Your task to perform on an android device: open app "Grab" Image 0: 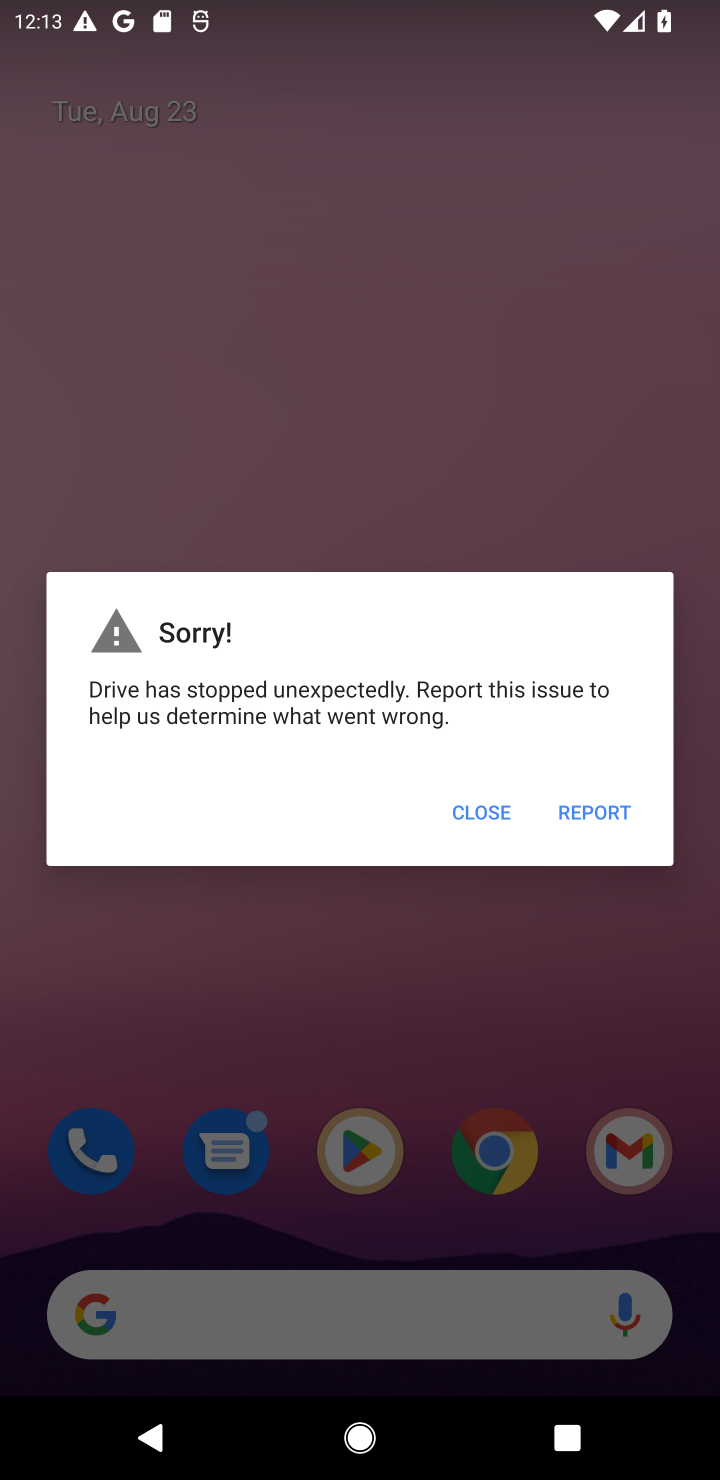
Step 0: click (484, 796)
Your task to perform on an android device: open app "Grab" Image 1: 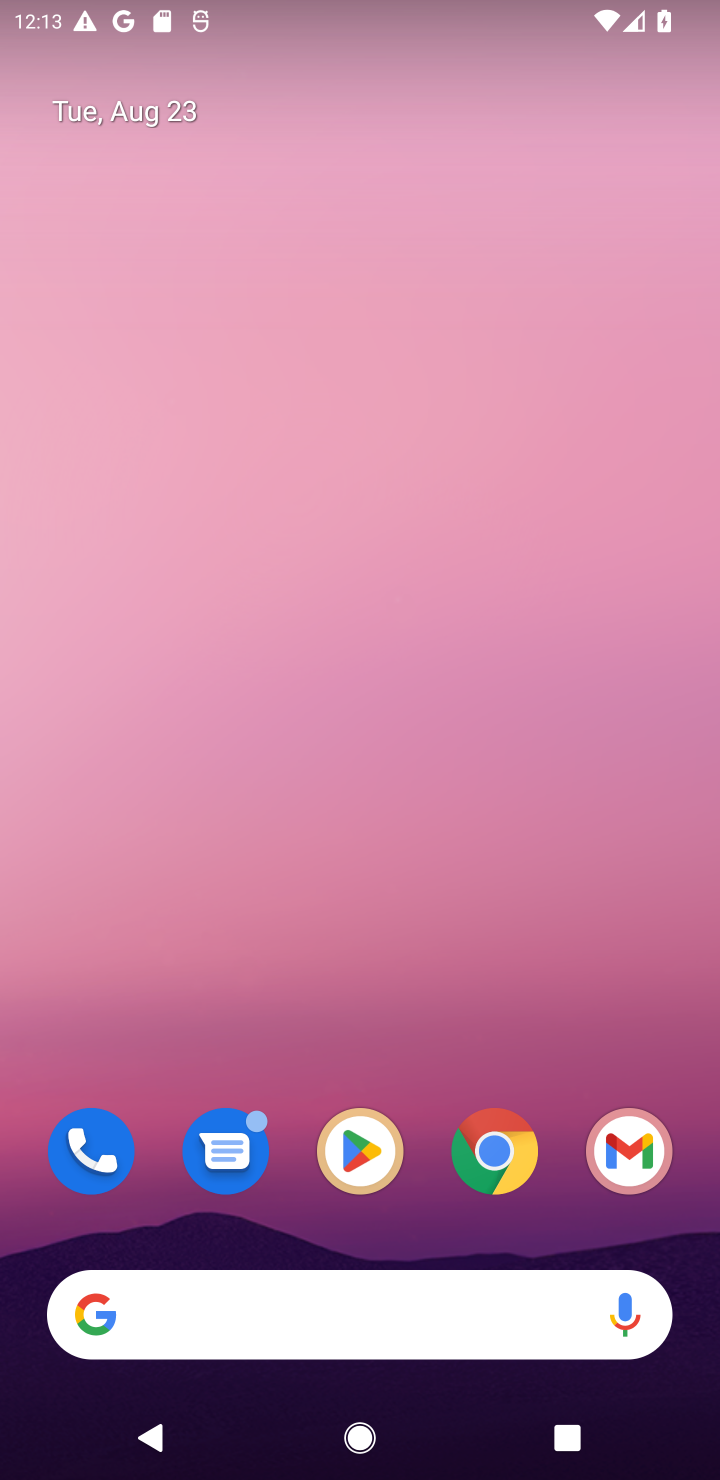
Step 1: click (356, 1124)
Your task to perform on an android device: open app "Grab" Image 2: 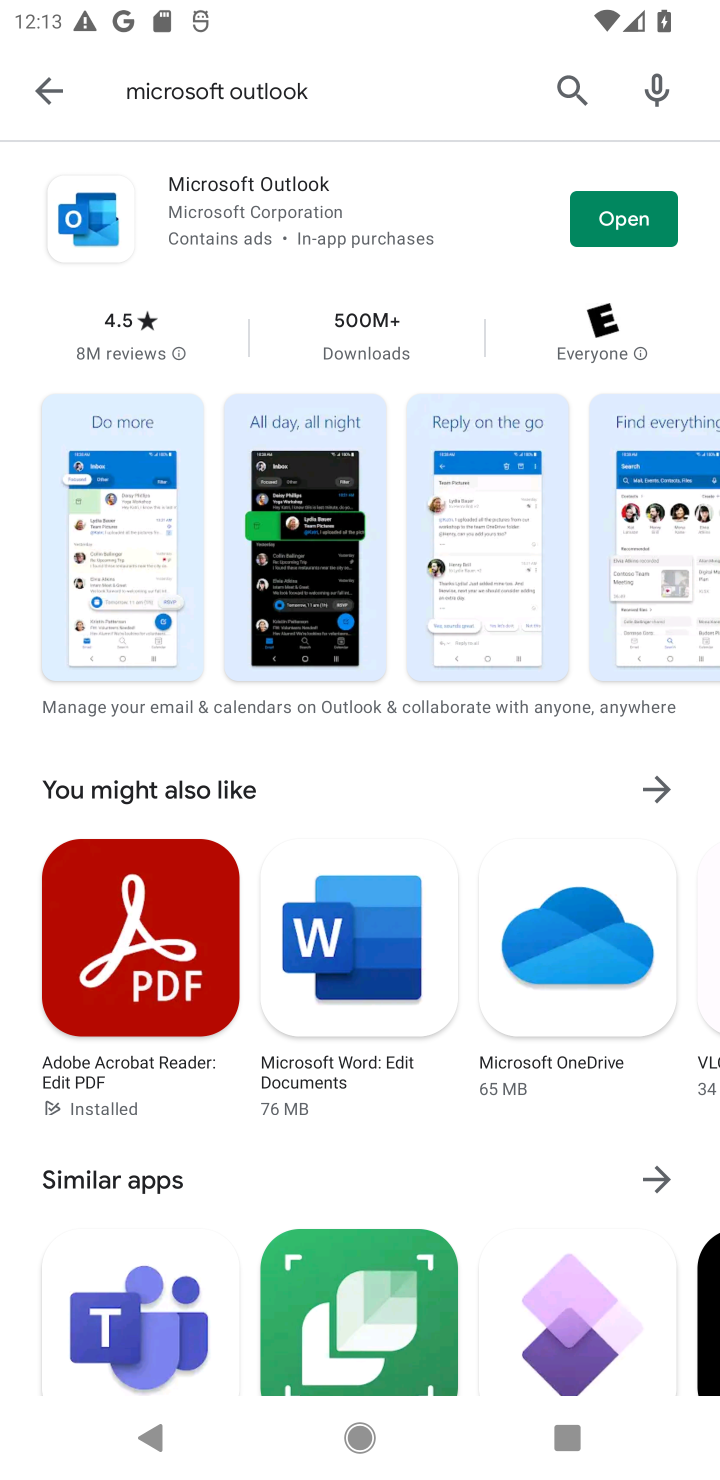
Step 2: click (560, 76)
Your task to perform on an android device: open app "Grab" Image 3: 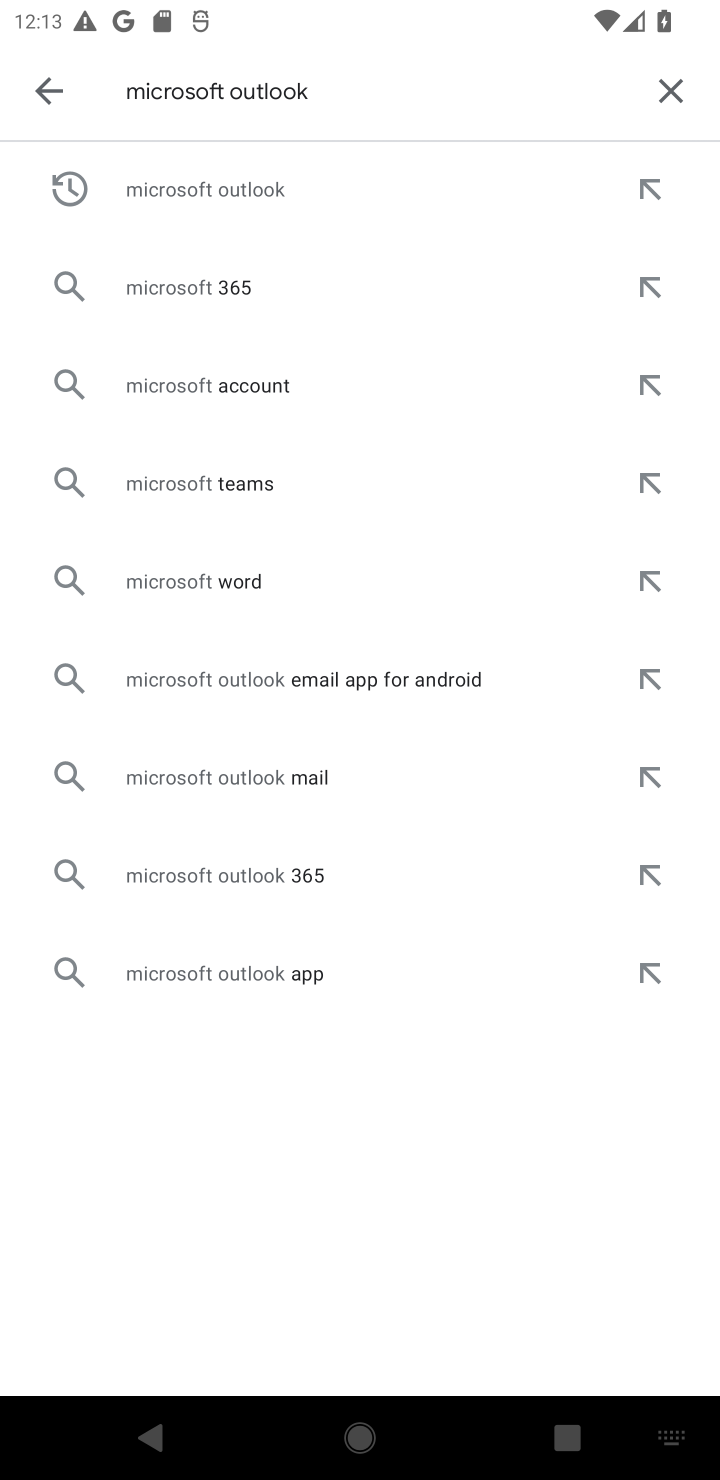
Step 3: click (683, 84)
Your task to perform on an android device: open app "Grab" Image 4: 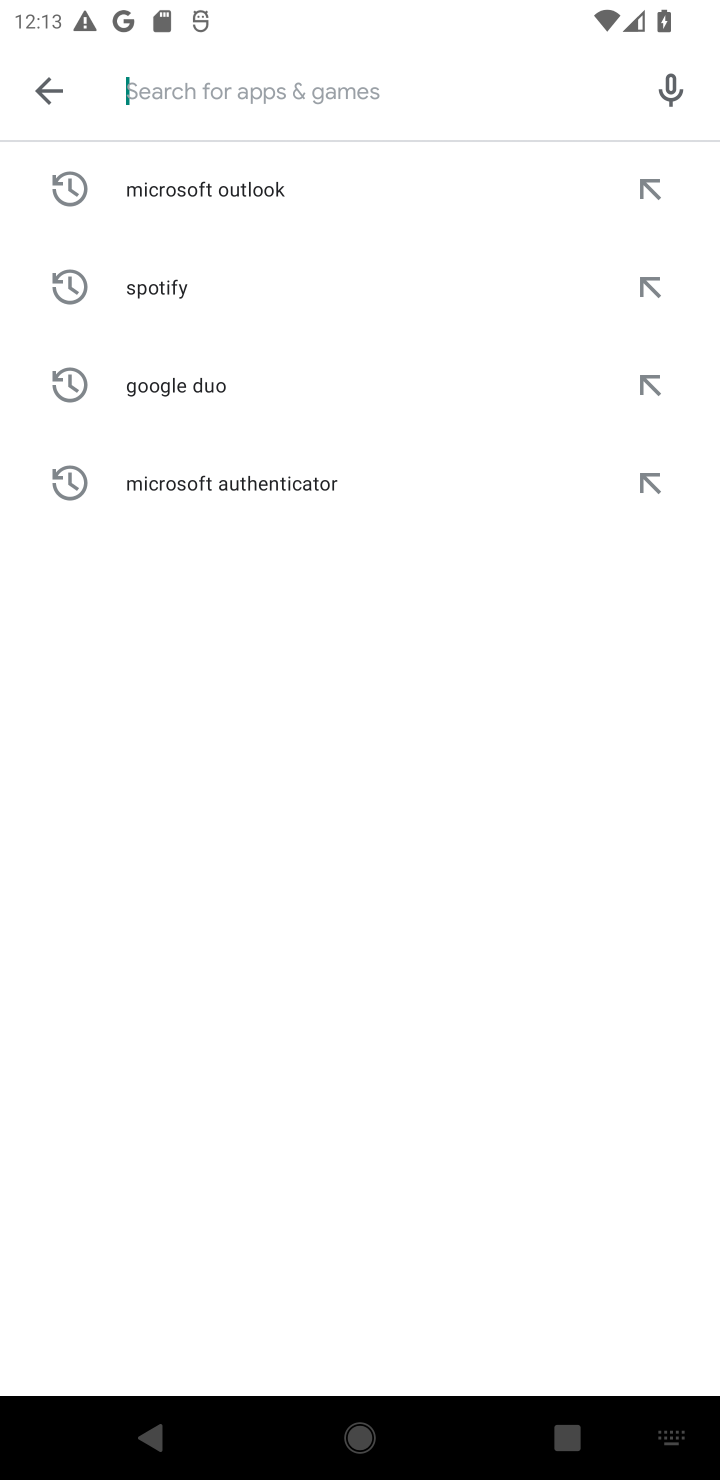
Step 4: type "Grab"
Your task to perform on an android device: open app "Grab" Image 5: 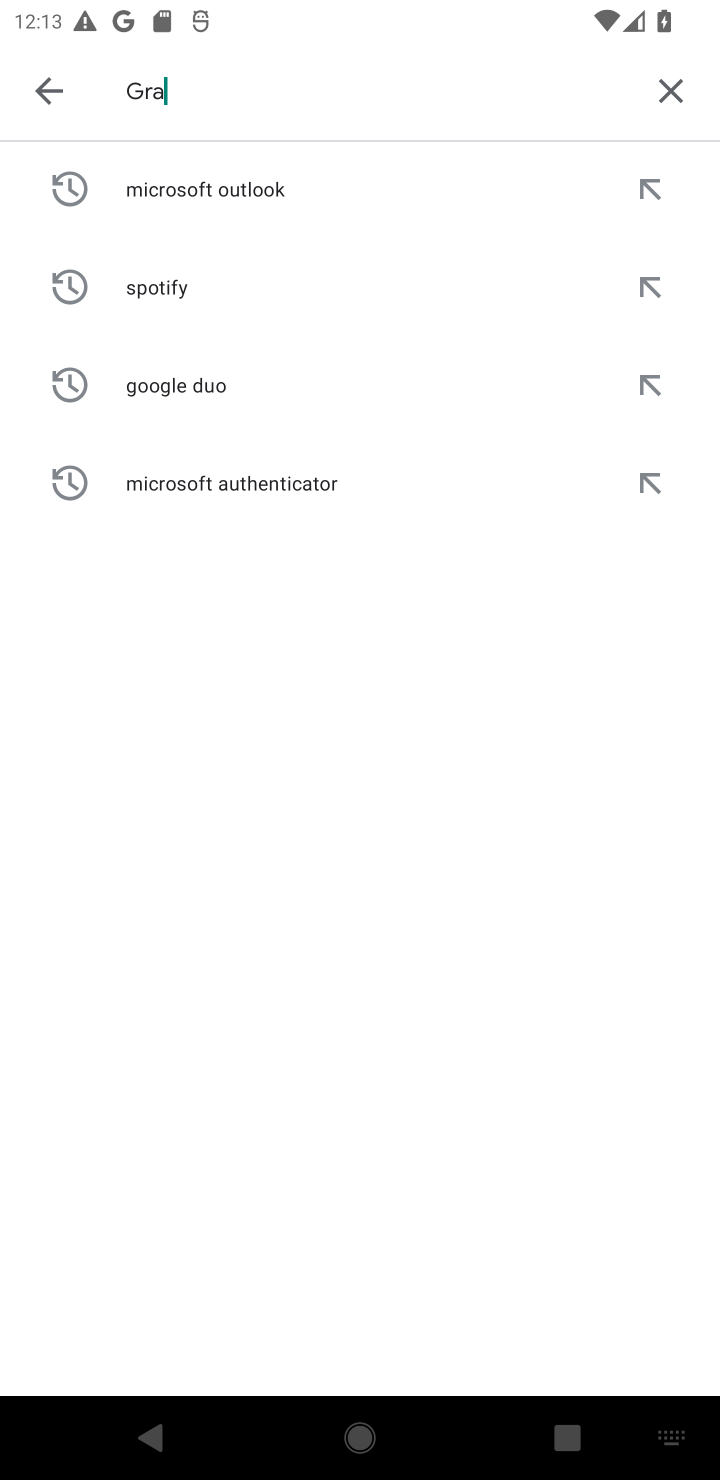
Step 5: type ""
Your task to perform on an android device: open app "Grab" Image 6: 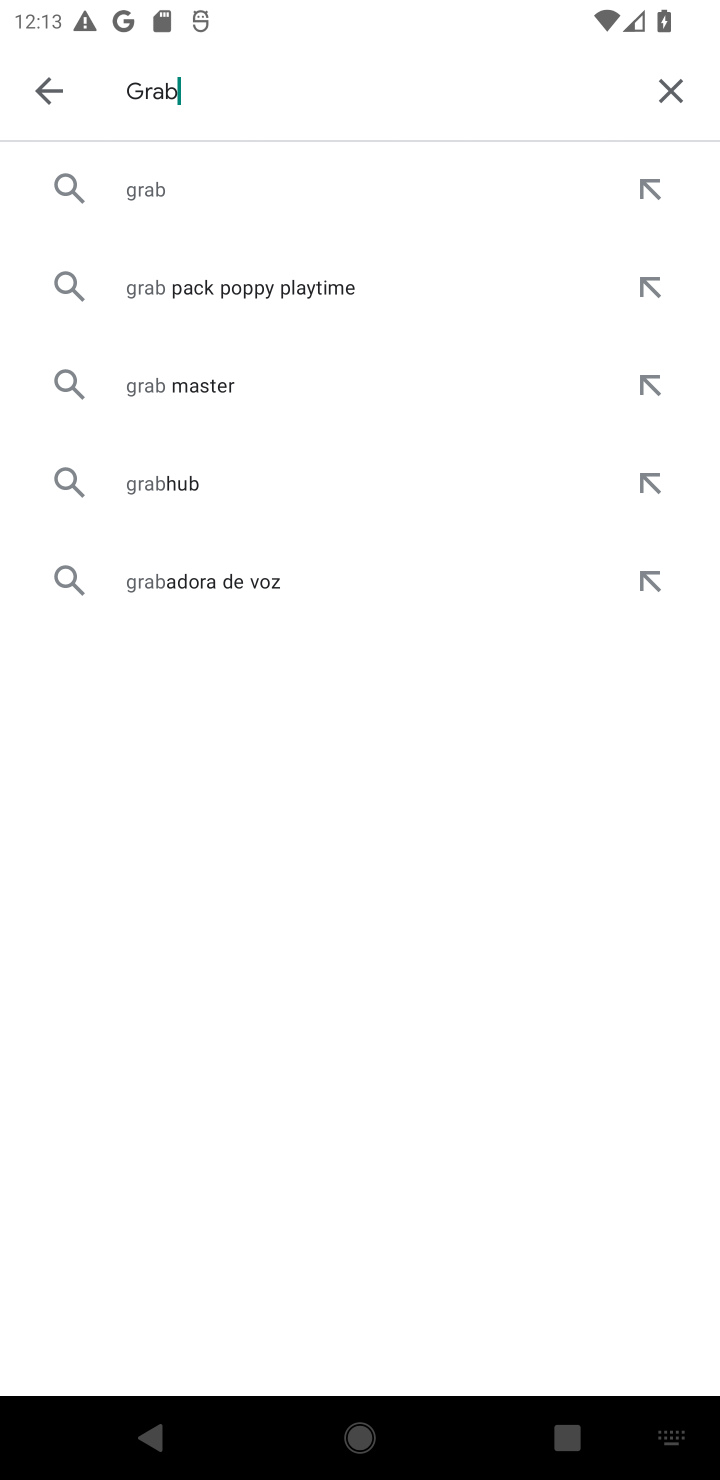
Step 6: click (206, 192)
Your task to perform on an android device: open app "Grab" Image 7: 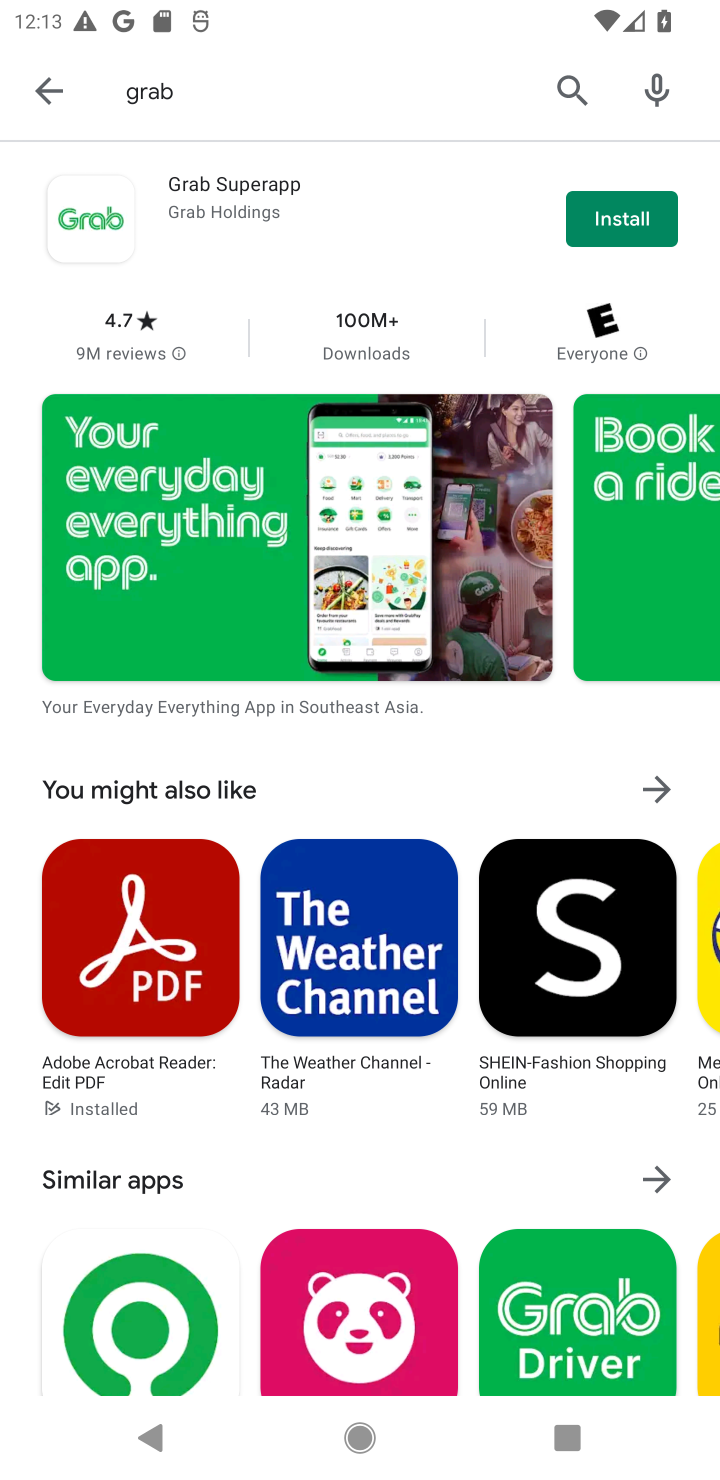
Step 7: task complete